Your task to perform on an android device: Open battery settings Image 0: 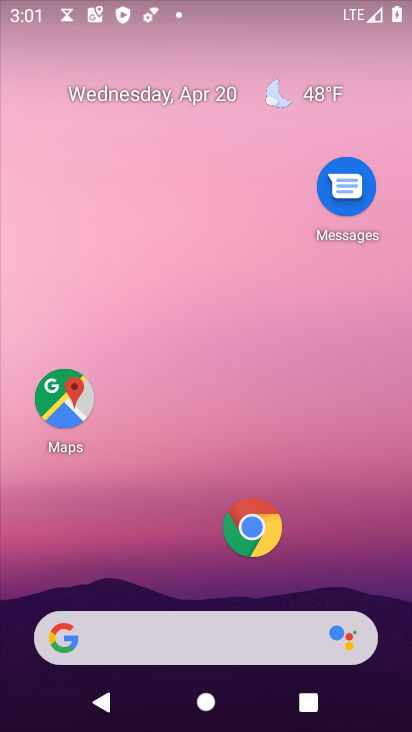
Step 0: drag from (159, 601) to (371, 6)
Your task to perform on an android device: Open battery settings Image 1: 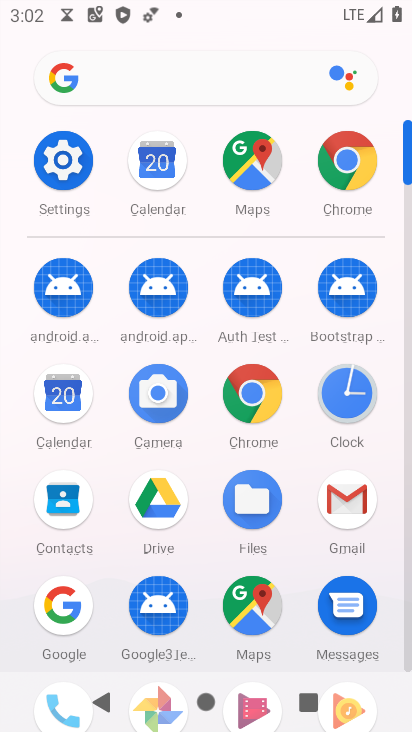
Step 1: click (63, 162)
Your task to perform on an android device: Open battery settings Image 2: 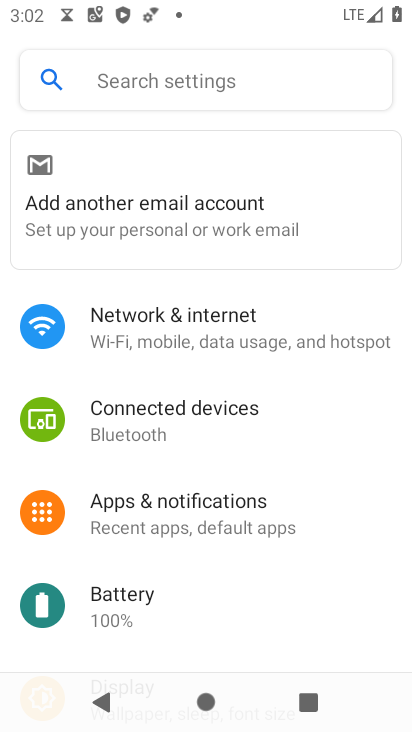
Step 2: drag from (221, 601) to (306, 332)
Your task to perform on an android device: Open battery settings Image 3: 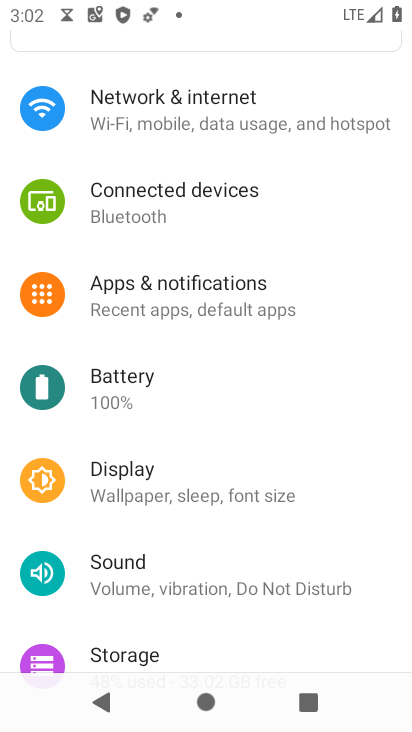
Step 3: click (116, 389)
Your task to perform on an android device: Open battery settings Image 4: 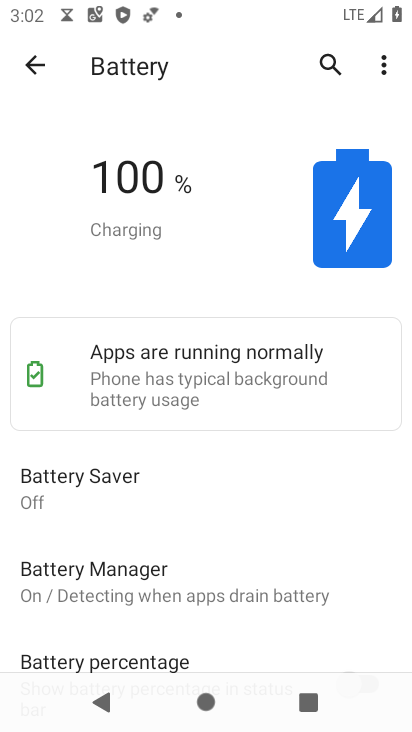
Step 4: task complete